Your task to perform on an android device: Search for Italian restaurants on Maps Image 0: 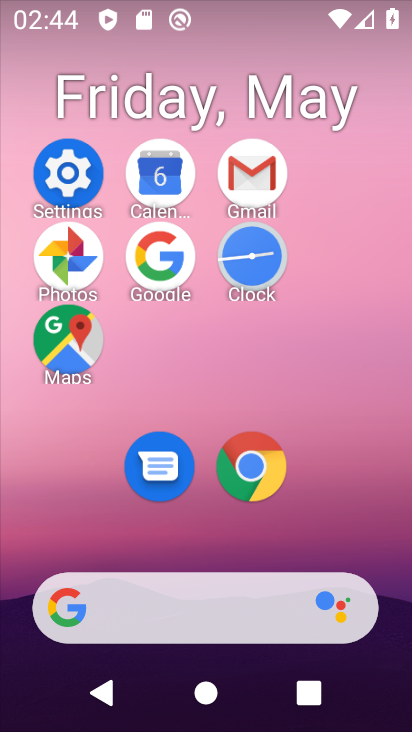
Step 0: click (81, 346)
Your task to perform on an android device: Search for Italian restaurants on Maps Image 1: 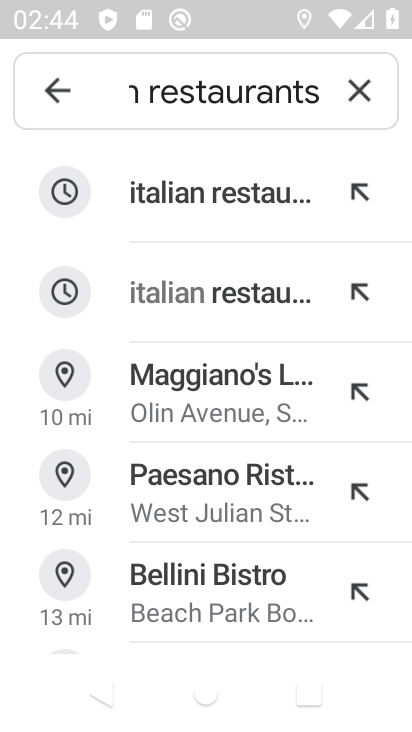
Step 1: click (214, 193)
Your task to perform on an android device: Search for Italian restaurants on Maps Image 2: 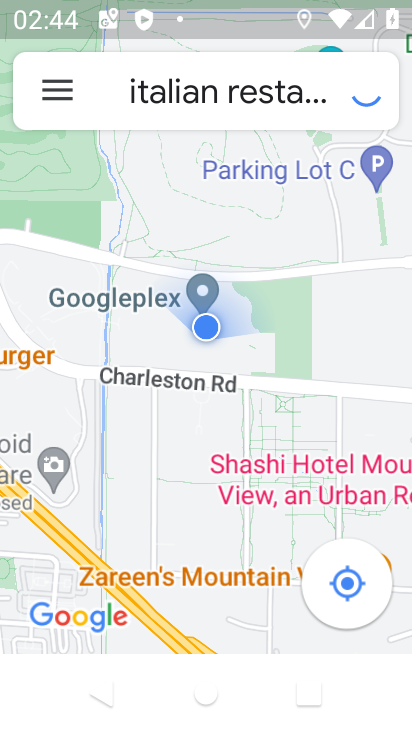
Step 2: task complete